Your task to perform on an android device: Show me popular games on the Play Store Image 0: 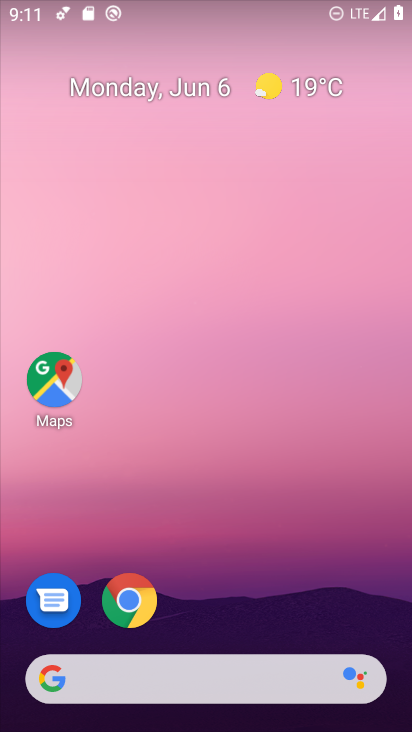
Step 0: drag from (302, 600) to (6, 239)
Your task to perform on an android device: Show me popular games on the Play Store Image 1: 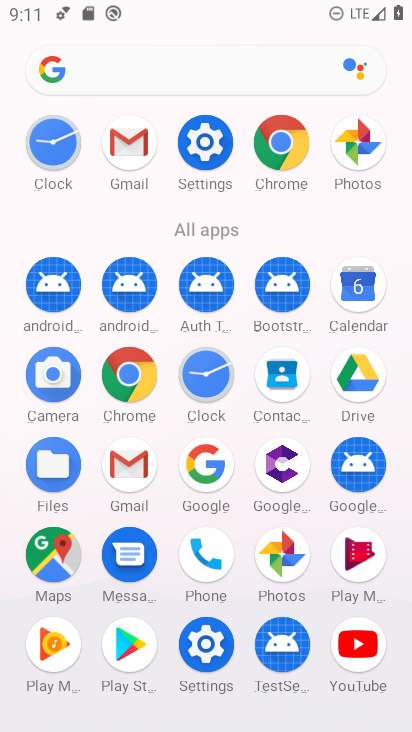
Step 1: click (123, 643)
Your task to perform on an android device: Show me popular games on the Play Store Image 2: 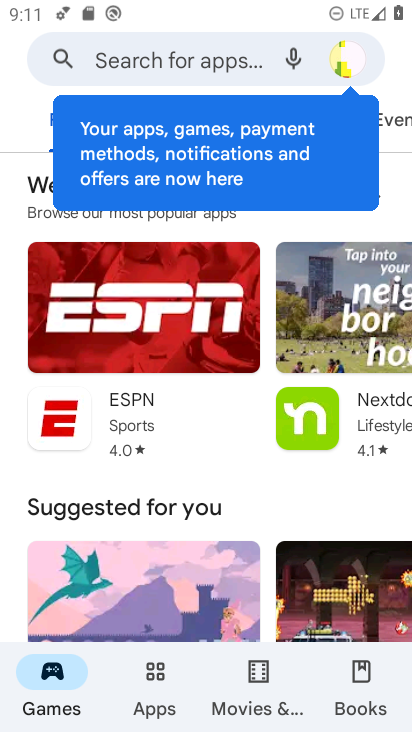
Step 2: click (14, 129)
Your task to perform on an android device: Show me popular games on the Play Store Image 3: 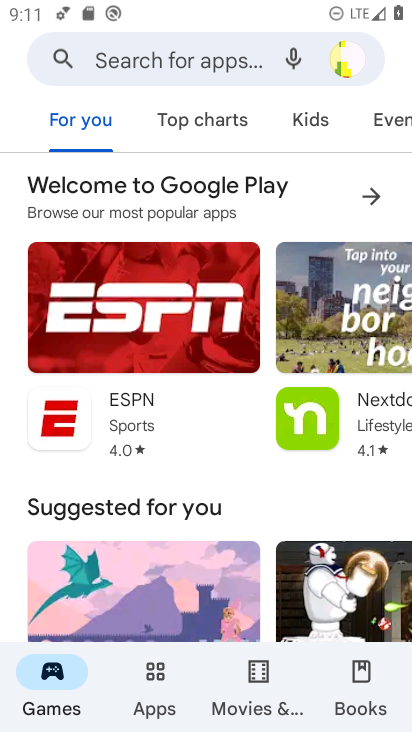
Step 3: click (155, 119)
Your task to perform on an android device: Show me popular games on the Play Store Image 4: 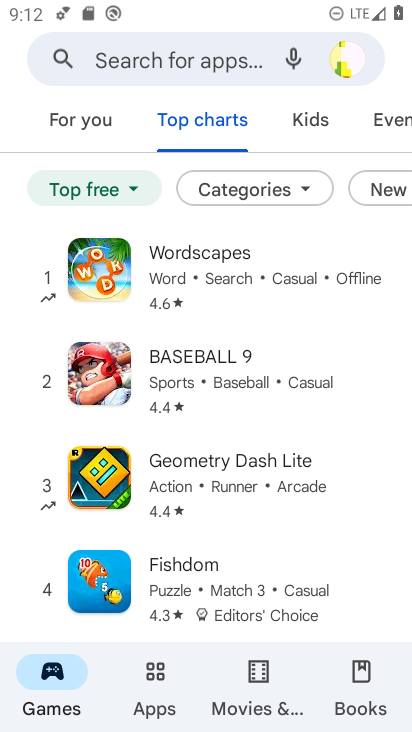
Step 4: task complete